Your task to perform on an android device: turn on sleep mode Image 0: 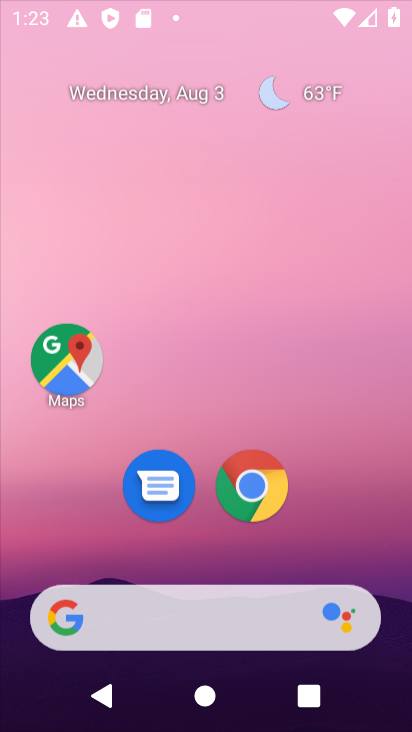
Step 0: press home button
Your task to perform on an android device: turn on sleep mode Image 1: 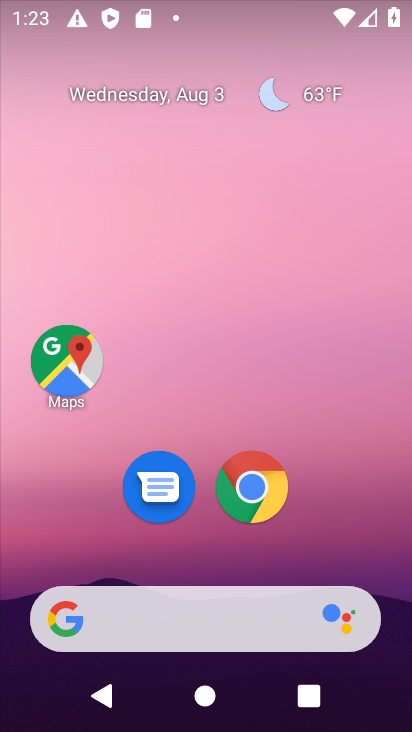
Step 1: drag from (301, 545) to (278, 39)
Your task to perform on an android device: turn on sleep mode Image 2: 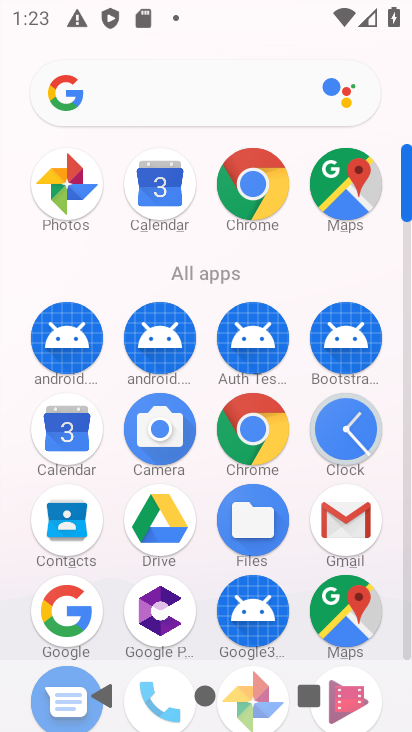
Step 2: drag from (208, 451) to (221, 110)
Your task to perform on an android device: turn on sleep mode Image 3: 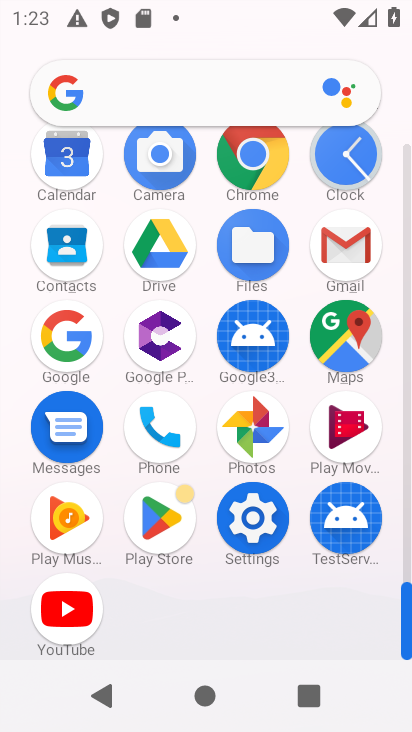
Step 3: click (255, 515)
Your task to perform on an android device: turn on sleep mode Image 4: 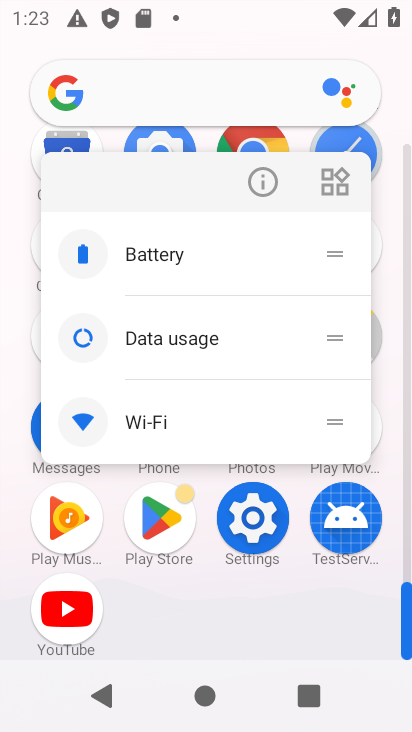
Step 4: click (257, 521)
Your task to perform on an android device: turn on sleep mode Image 5: 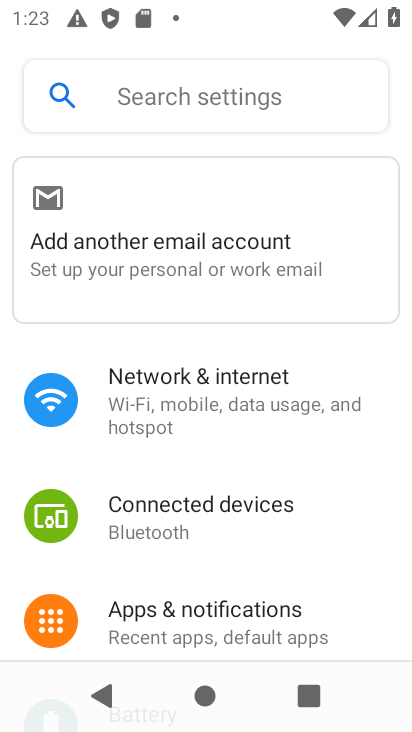
Step 5: drag from (348, 594) to (326, 233)
Your task to perform on an android device: turn on sleep mode Image 6: 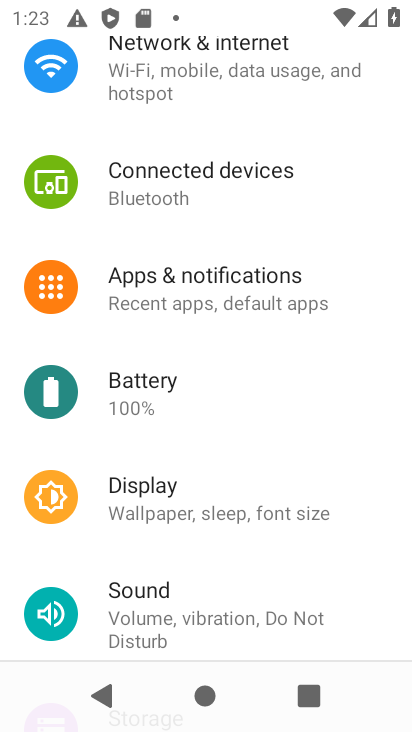
Step 6: click (156, 476)
Your task to perform on an android device: turn on sleep mode Image 7: 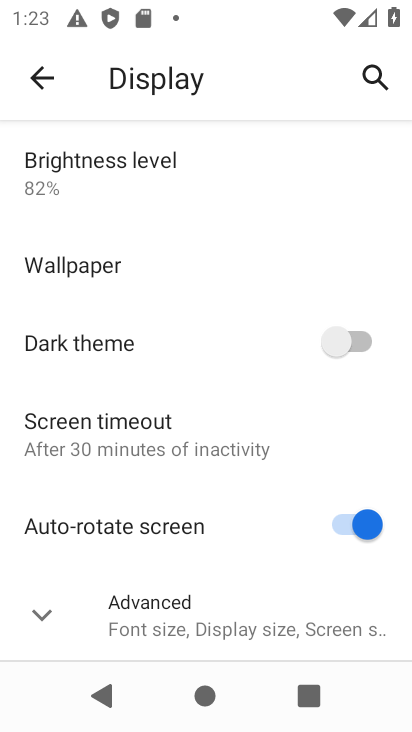
Step 7: task complete